Your task to perform on an android device: change text size in settings app Image 0: 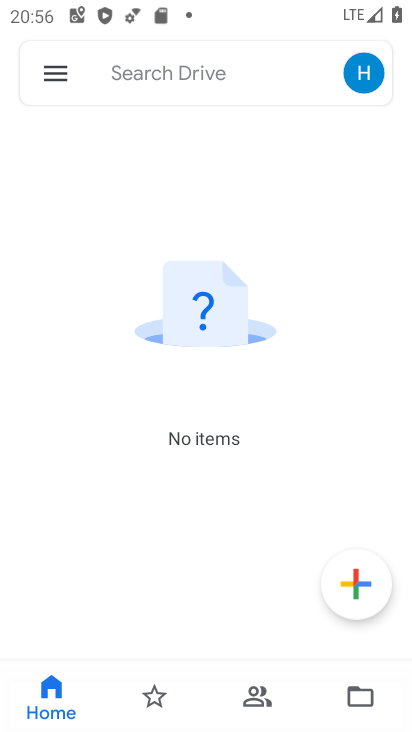
Step 0: press home button
Your task to perform on an android device: change text size in settings app Image 1: 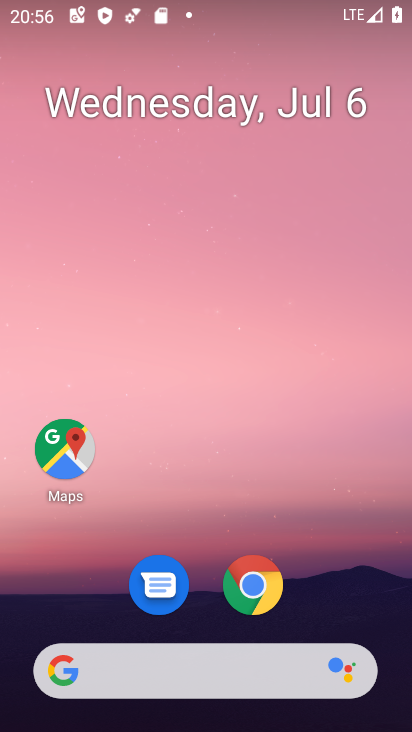
Step 1: drag from (195, 491) to (209, 30)
Your task to perform on an android device: change text size in settings app Image 2: 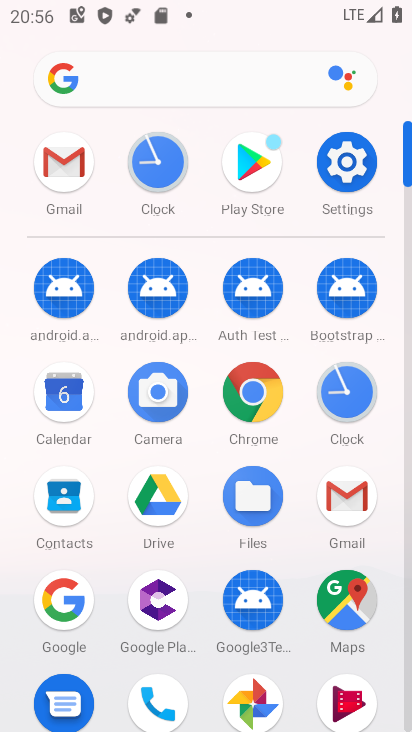
Step 2: click (351, 168)
Your task to perform on an android device: change text size in settings app Image 3: 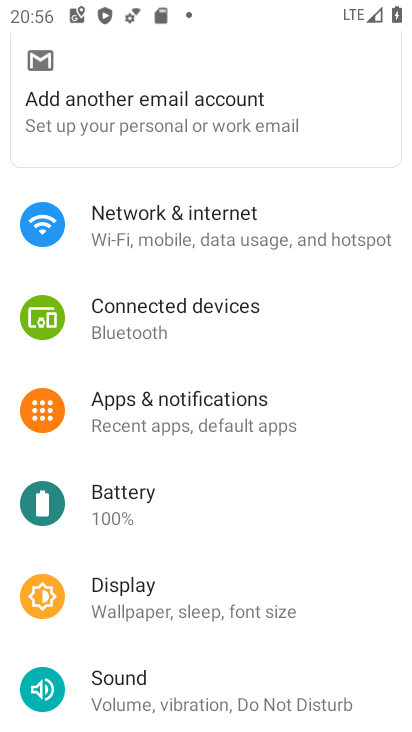
Step 3: drag from (169, 564) to (193, 263)
Your task to perform on an android device: change text size in settings app Image 4: 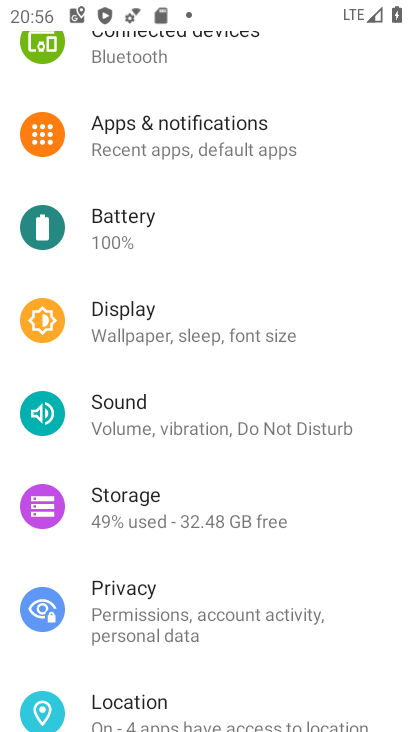
Step 4: click (201, 314)
Your task to perform on an android device: change text size in settings app Image 5: 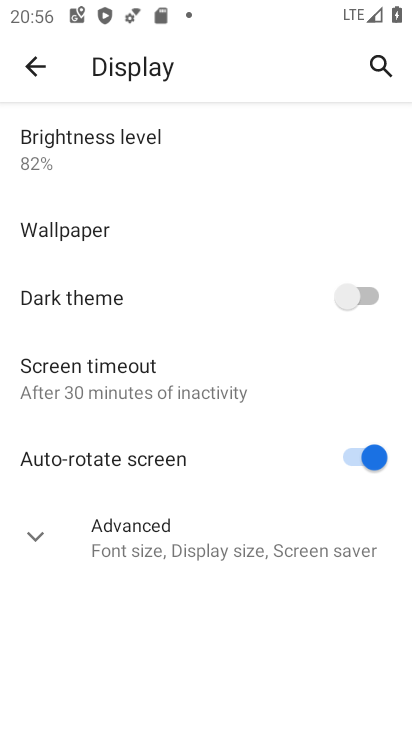
Step 5: click (36, 531)
Your task to perform on an android device: change text size in settings app Image 6: 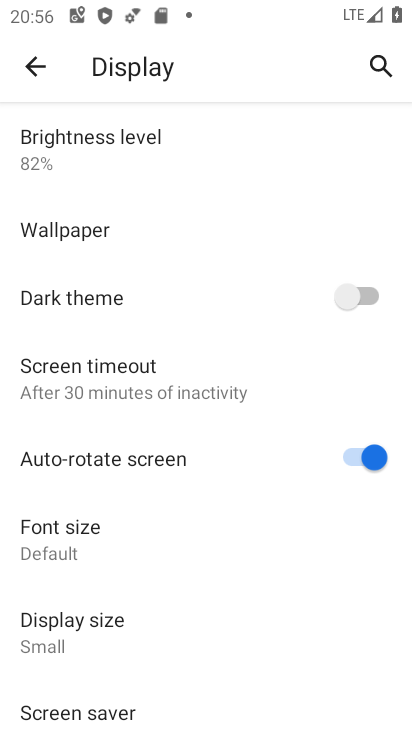
Step 6: click (72, 539)
Your task to perform on an android device: change text size in settings app Image 7: 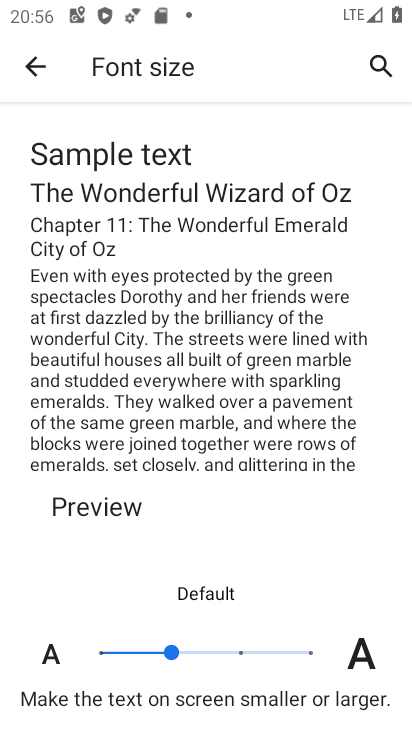
Step 7: click (235, 646)
Your task to perform on an android device: change text size in settings app Image 8: 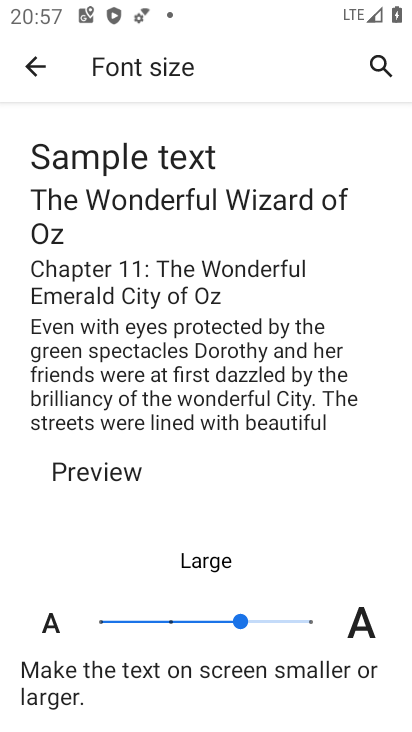
Step 8: task complete